Your task to perform on an android device: change the clock display to digital Image 0: 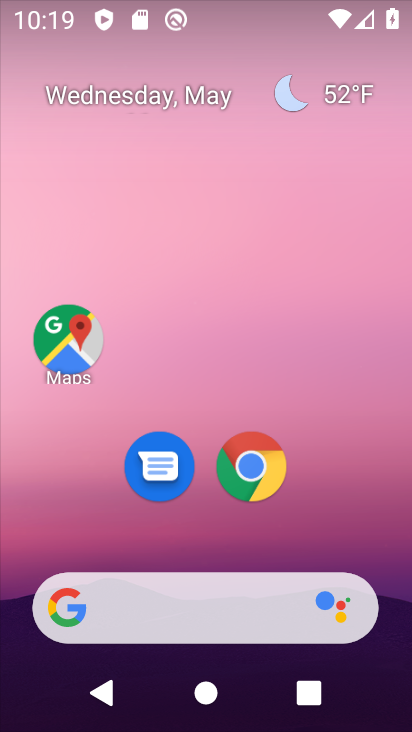
Step 0: drag from (202, 527) to (260, 15)
Your task to perform on an android device: change the clock display to digital Image 1: 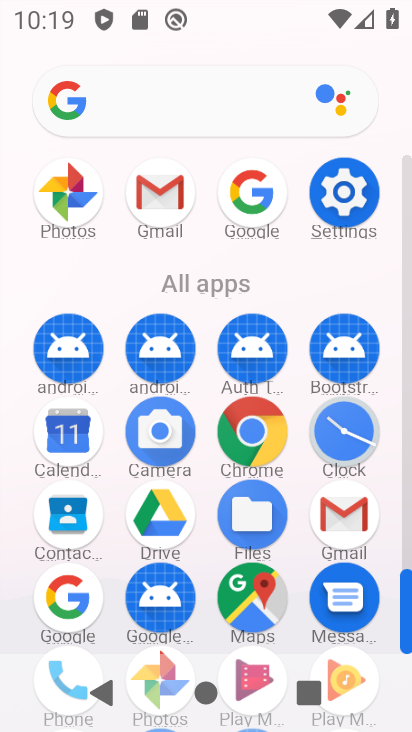
Step 1: click (340, 427)
Your task to perform on an android device: change the clock display to digital Image 2: 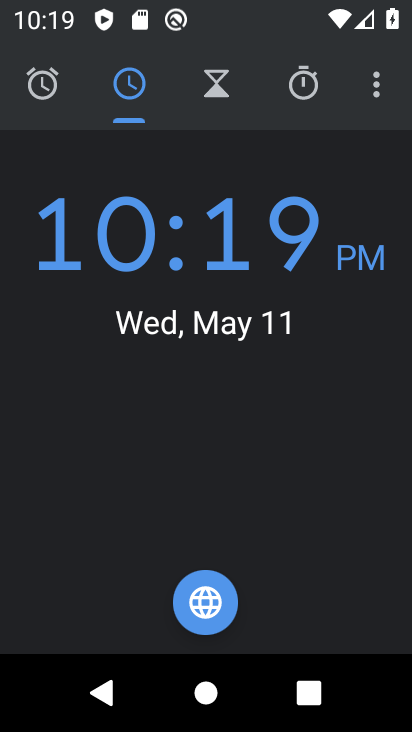
Step 2: click (370, 77)
Your task to perform on an android device: change the clock display to digital Image 3: 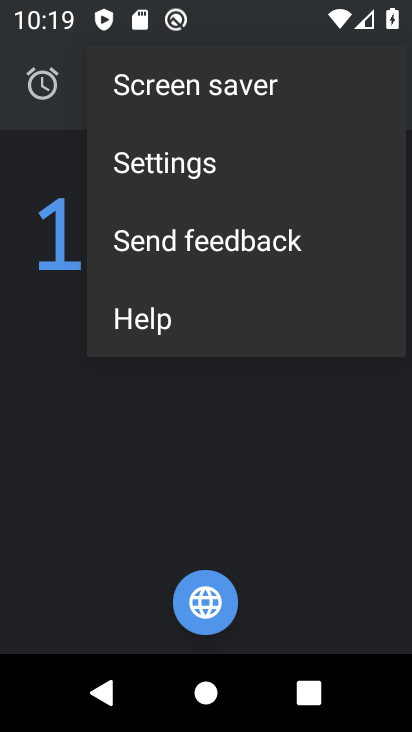
Step 3: click (210, 193)
Your task to perform on an android device: change the clock display to digital Image 4: 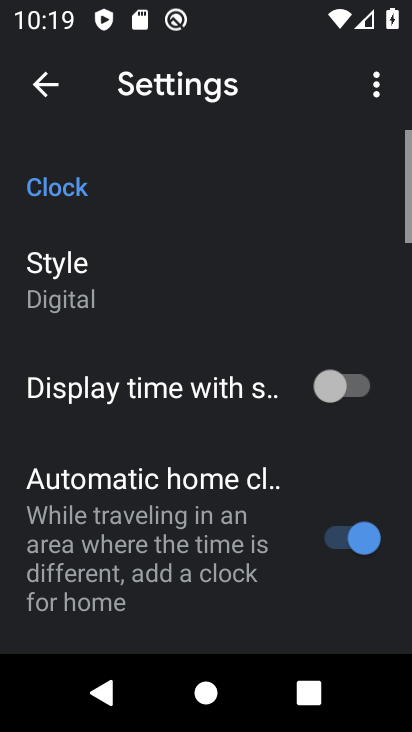
Step 4: click (121, 263)
Your task to perform on an android device: change the clock display to digital Image 5: 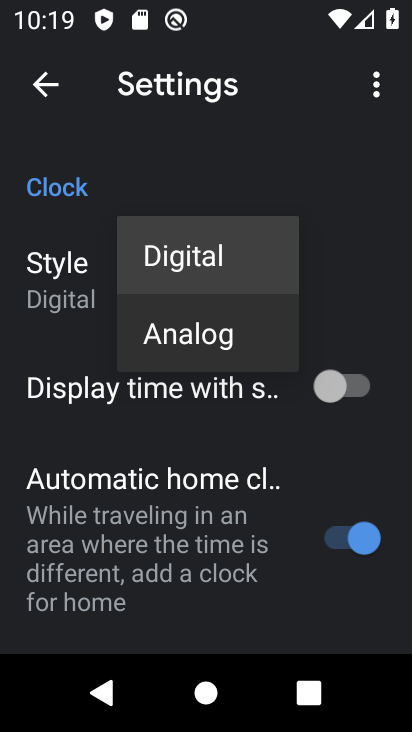
Step 5: task complete